Your task to perform on an android device: Show me popular games on the Play Store Image 0: 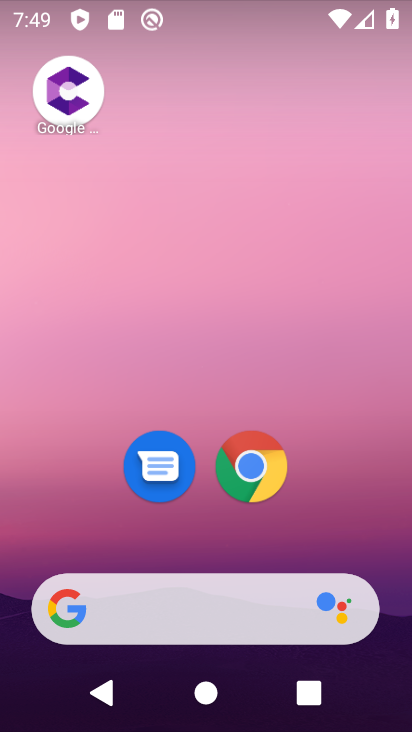
Step 0: drag from (364, 553) to (386, 3)
Your task to perform on an android device: Show me popular games on the Play Store Image 1: 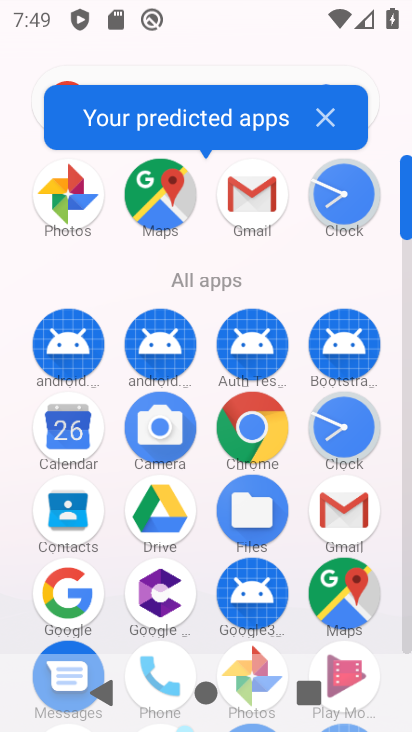
Step 1: click (405, 541)
Your task to perform on an android device: Show me popular games on the Play Store Image 2: 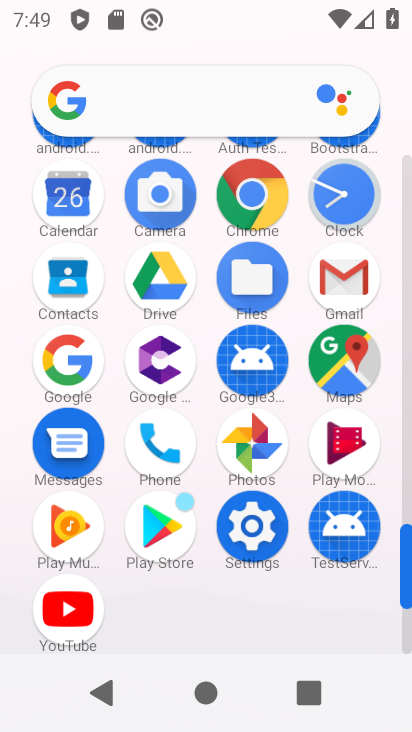
Step 2: click (158, 526)
Your task to perform on an android device: Show me popular games on the Play Store Image 3: 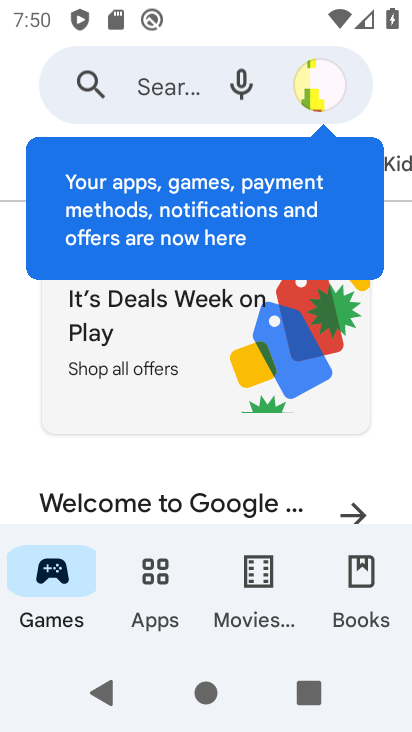
Step 3: drag from (206, 463) to (213, 243)
Your task to perform on an android device: Show me popular games on the Play Store Image 4: 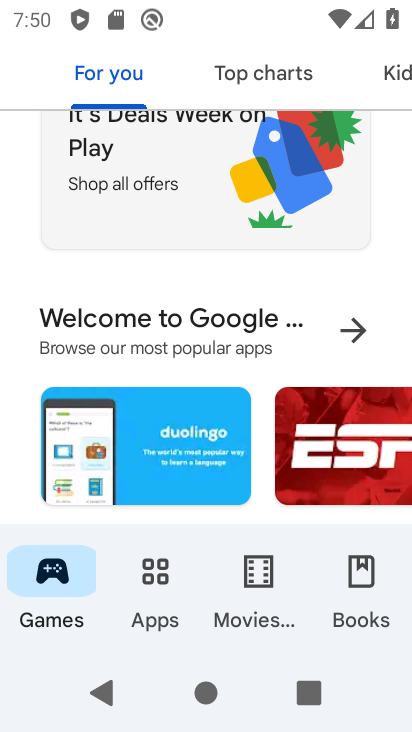
Step 4: drag from (205, 410) to (204, 139)
Your task to perform on an android device: Show me popular games on the Play Store Image 5: 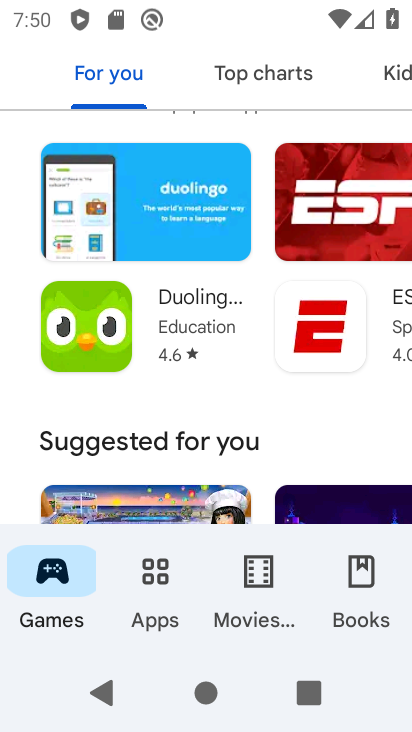
Step 5: drag from (211, 483) to (200, 182)
Your task to perform on an android device: Show me popular games on the Play Store Image 6: 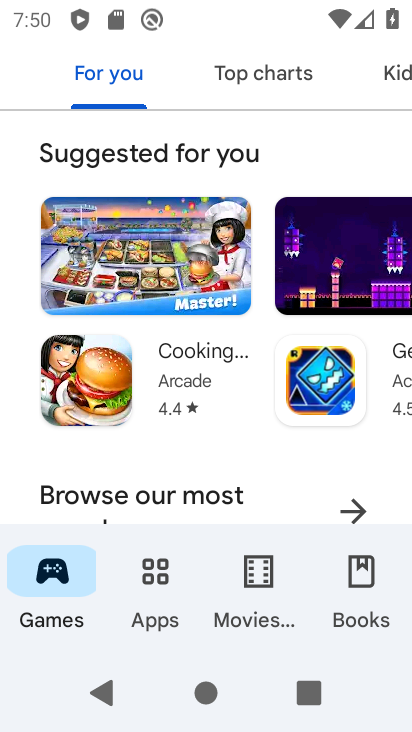
Step 6: drag from (203, 441) to (192, 165)
Your task to perform on an android device: Show me popular games on the Play Store Image 7: 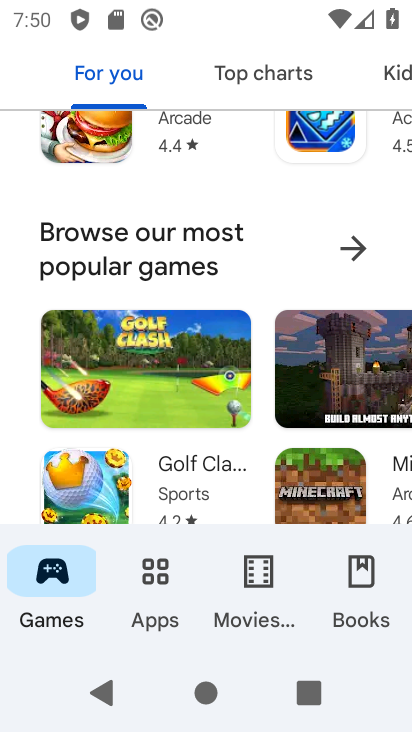
Step 7: click (202, 234)
Your task to perform on an android device: Show me popular games on the Play Store Image 8: 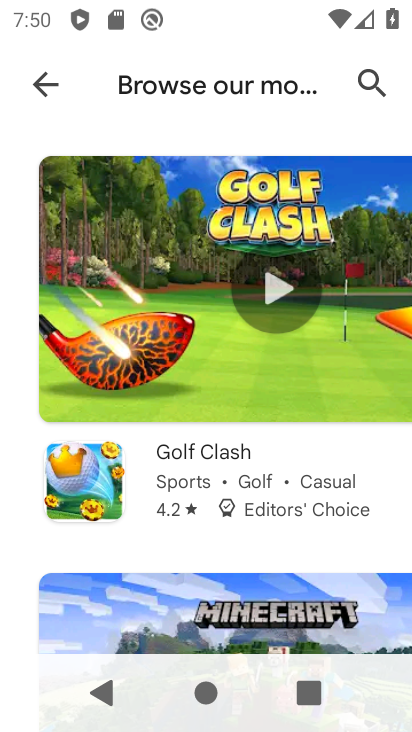
Step 8: task complete